Your task to perform on an android device: Open calendar and show me the second week of next month Image 0: 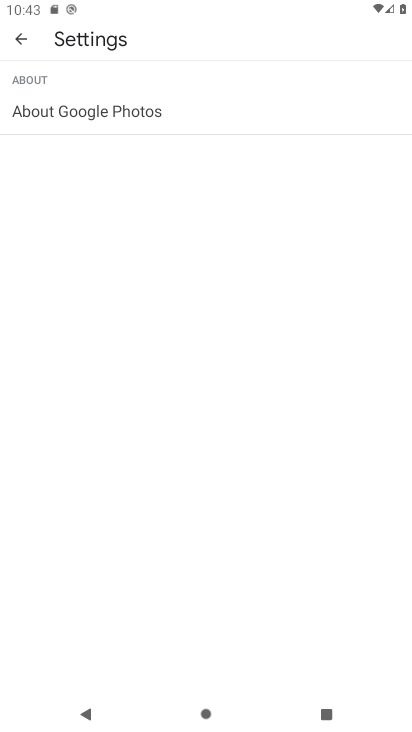
Step 0: click (14, 38)
Your task to perform on an android device: Open calendar and show me the second week of next month Image 1: 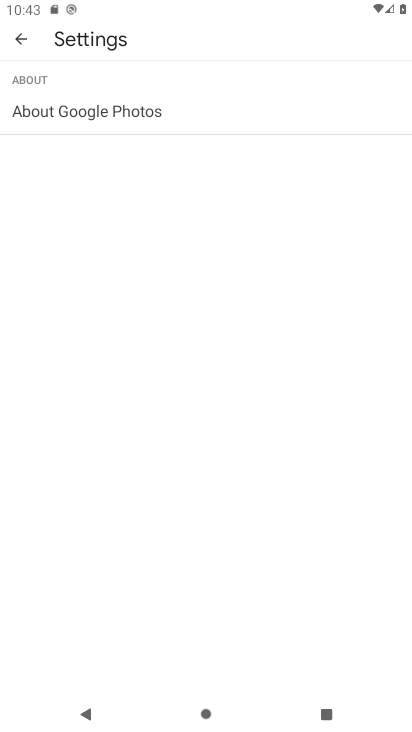
Step 1: click (12, 38)
Your task to perform on an android device: Open calendar and show me the second week of next month Image 2: 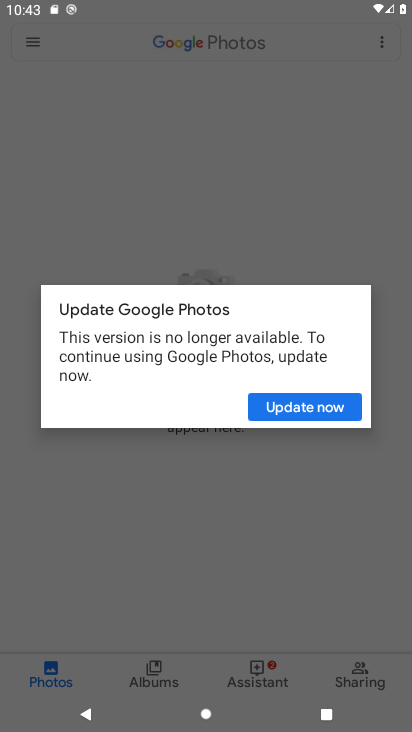
Step 2: click (248, 189)
Your task to perform on an android device: Open calendar and show me the second week of next month Image 3: 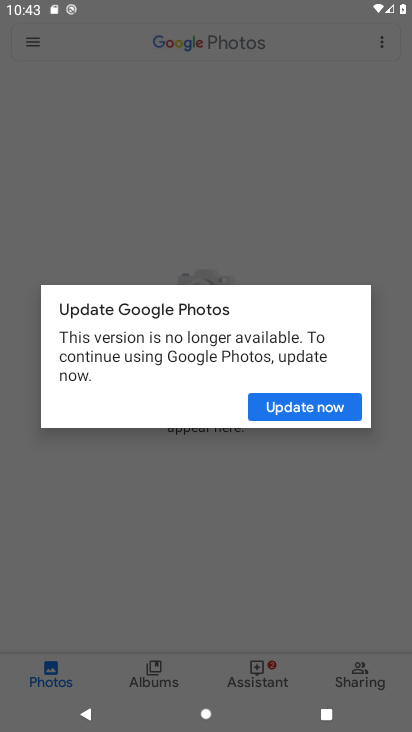
Step 3: click (243, 182)
Your task to perform on an android device: Open calendar and show me the second week of next month Image 4: 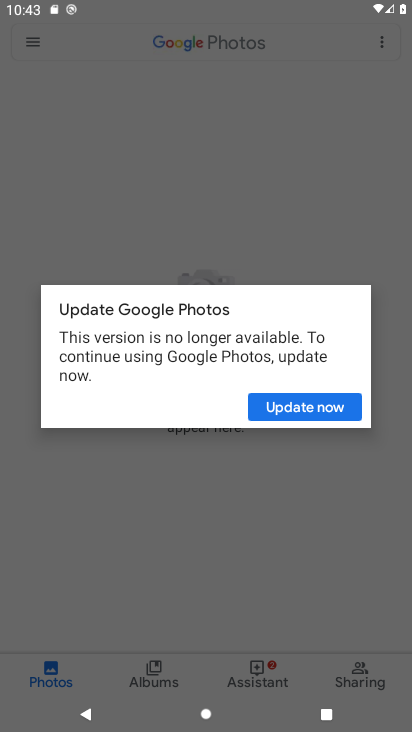
Step 4: press back button
Your task to perform on an android device: Open calendar and show me the second week of next month Image 5: 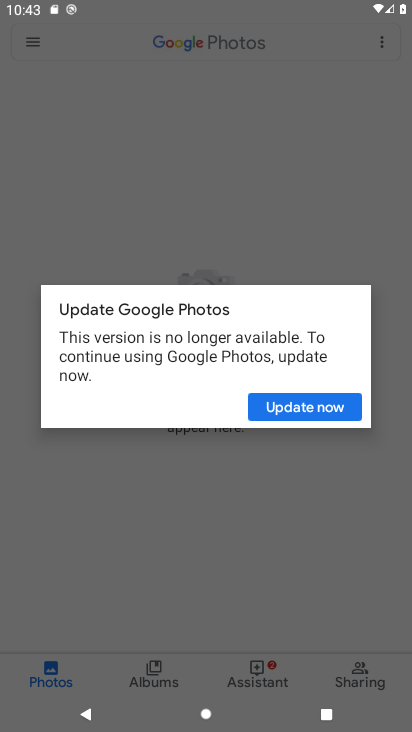
Step 5: press back button
Your task to perform on an android device: Open calendar and show me the second week of next month Image 6: 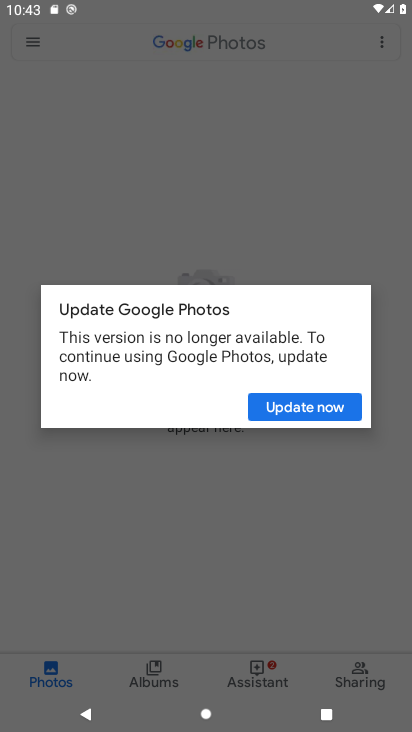
Step 6: click (130, 137)
Your task to perform on an android device: Open calendar and show me the second week of next month Image 7: 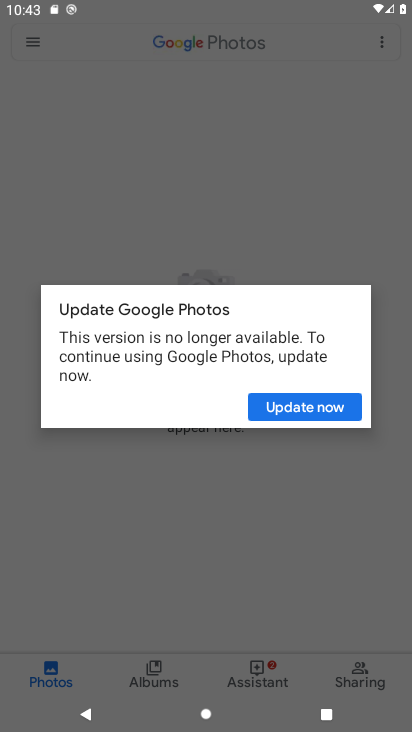
Step 7: click (130, 137)
Your task to perform on an android device: Open calendar and show me the second week of next month Image 8: 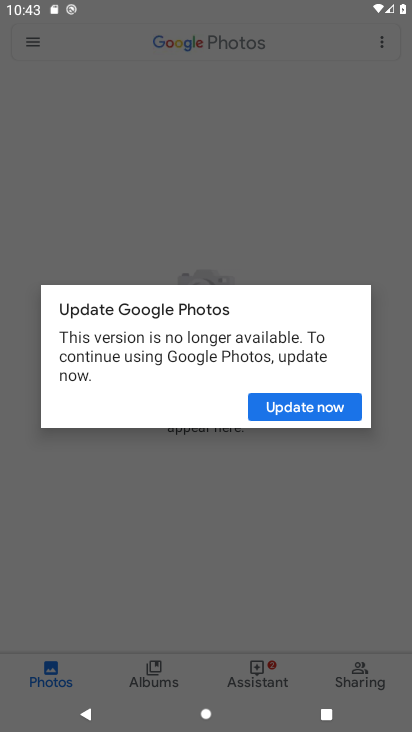
Step 8: press home button
Your task to perform on an android device: Open calendar and show me the second week of next month Image 9: 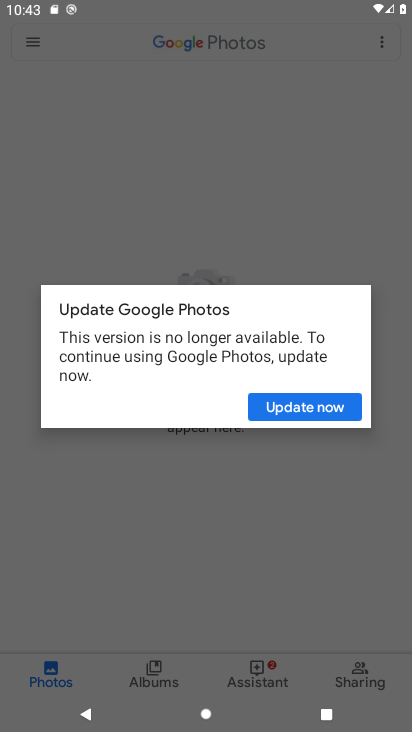
Step 9: press home button
Your task to perform on an android device: Open calendar and show me the second week of next month Image 10: 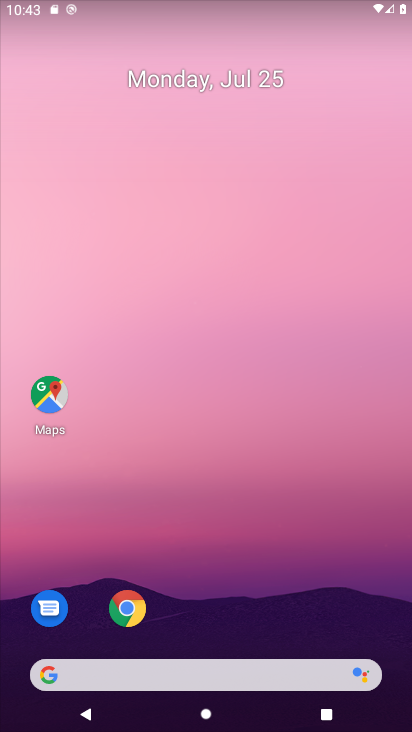
Step 10: click (191, 258)
Your task to perform on an android device: Open calendar and show me the second week of next month Image 11: 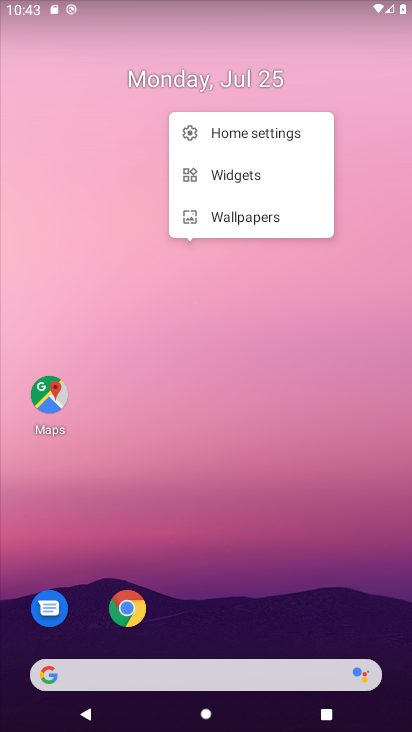
Step 11: drag from (250, 616) to (207, 296)
Your task to perform on an android device: Open calendar and show me the second week of next month Image 12: 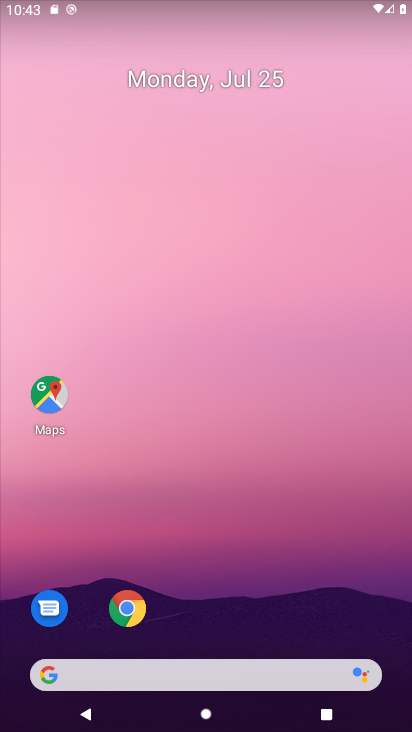
Step 12: drag from (263, 566) to (228, 267)
Your task to perform on an android device: Open calendar and show me the second week of next month Image 13: 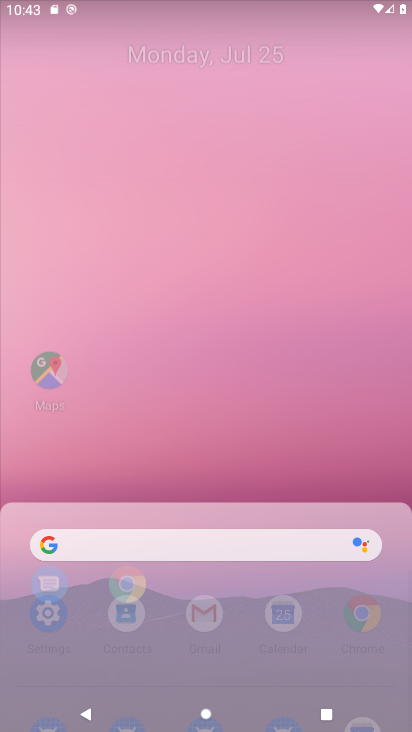
Step 13: click (170, 120)
Your task to perform on an android device: Open calendar and show me the second week of next month Image 14: 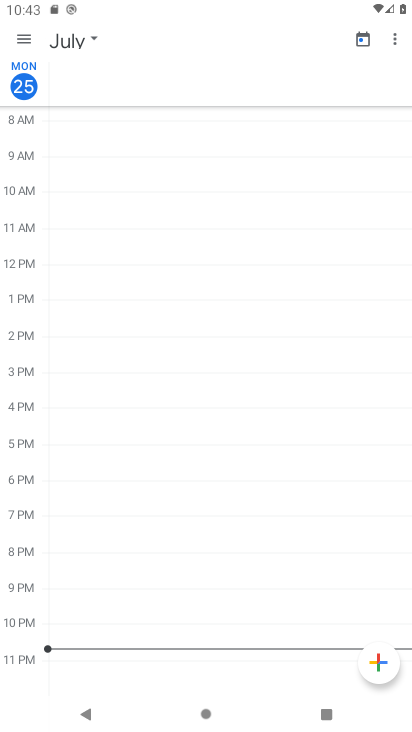
Step 14: drag from (246, 637) to (231, 246)
Your task to perform on an android device: Open calendar and show me the second week of next month Image 15: 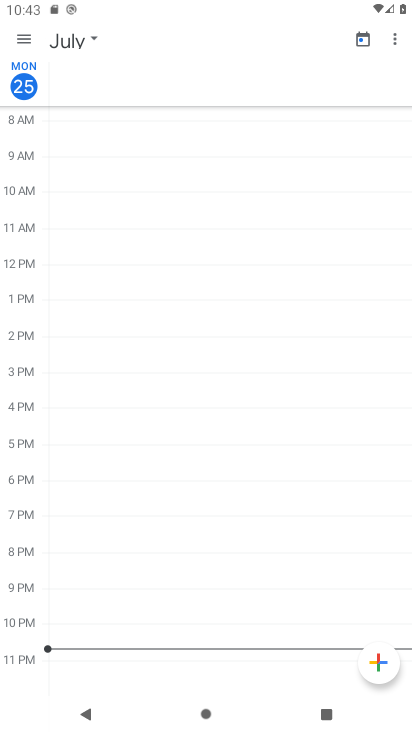
Step 15: press back button
Your task to perform on an android device: Open calendar and show me the second week of next month Image 16: 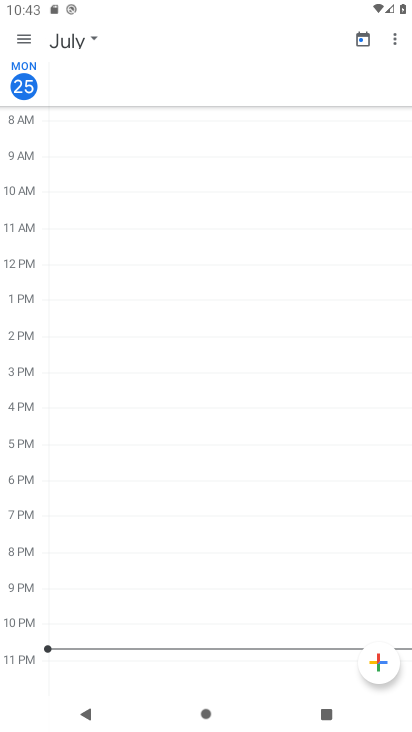
Step 16: press back button
Your task to perform on an android device: Open calendar and show me the second week of next month Image 17: 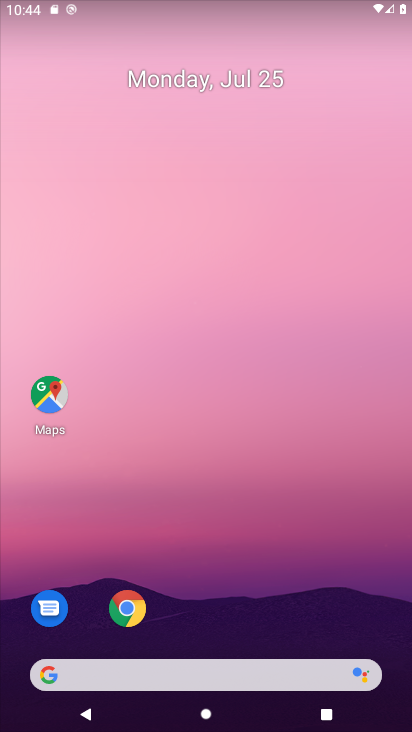
Step 17: drag from (284, 529) to (190, 237)
Your task to perform on an android device: Open calendar and show me the second week of next month Image 18: 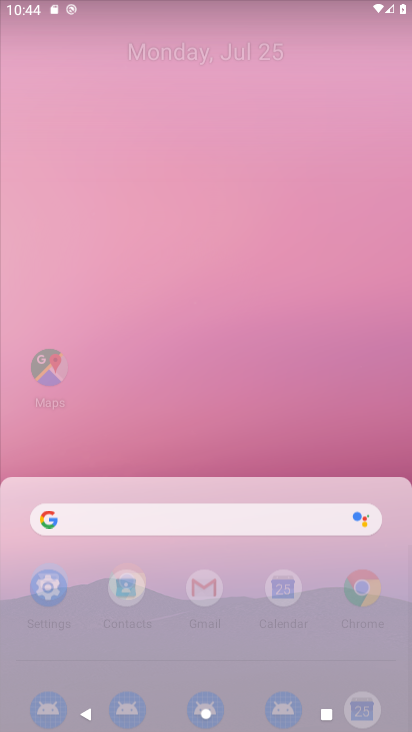
Step 18: drag from (180, 658) to (186, 379)
Your task to perform on an android device: Open calendar and show me the second week of next month Image 19: 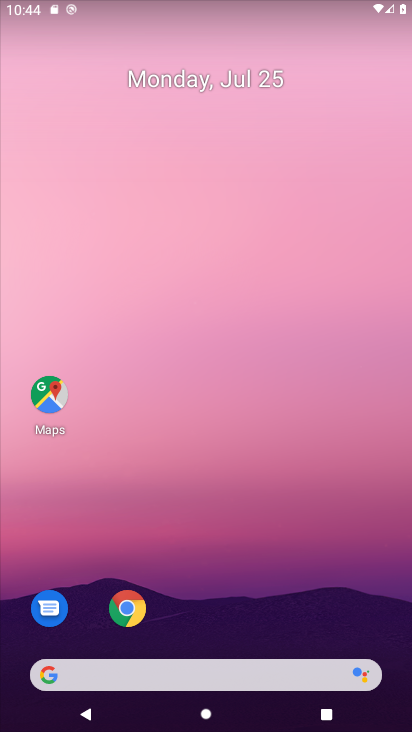
Step 19: drag from (191, 488) to (141, 266)
Your task to perform on an android device: Open calendar and show me the second week of next month Image 20: 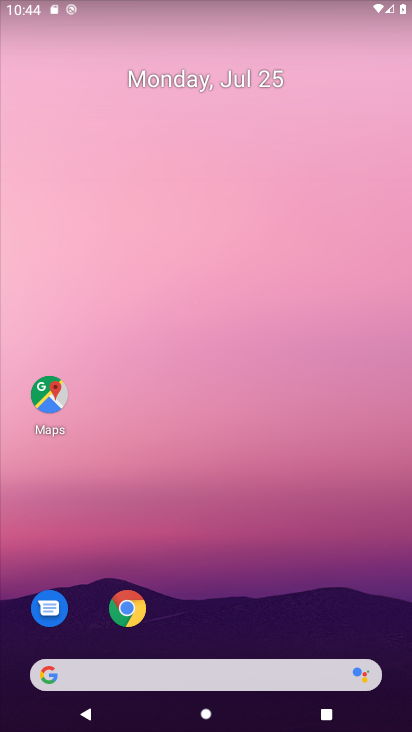
Step 20: drag from (260, 566) to (222, 266)
Your task to perform on an android device: Open calendar and show me the second week of next month Image 21: 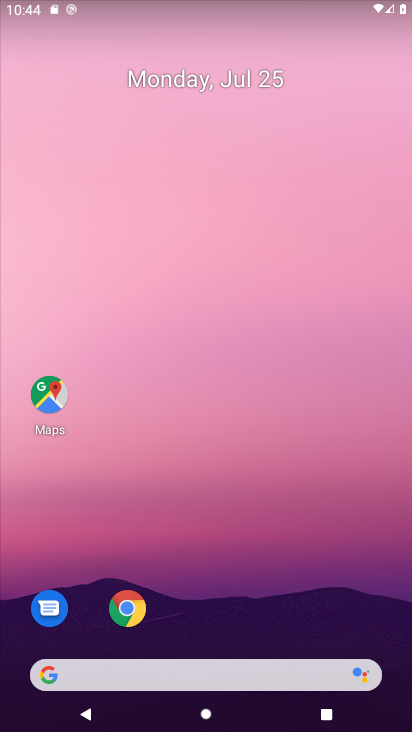
Step 21: drag from (275, 660) to (257, 202)
Your task to perform on an android device: Open calendar and show me the second week of next month Image 22: 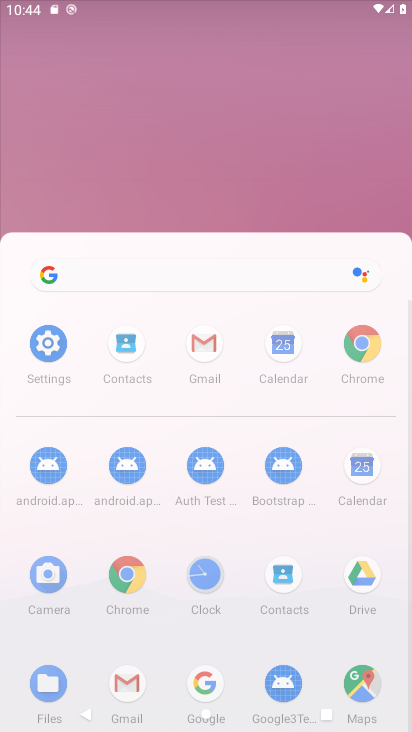
Step 22: drag from (246, 547) to (196, 171)
Your task to perform on an android device: Open calendar and show me the second week of next month Image 23: 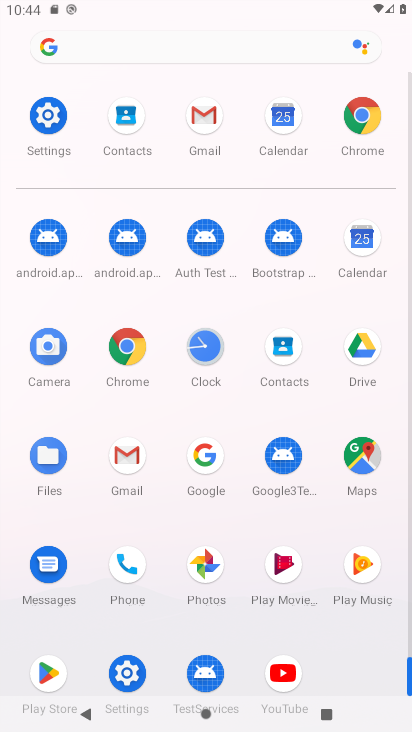
Step 23: click (358, 240)
Your task to perform on an android device: Open calendar and show me the second week of next month Image 24: 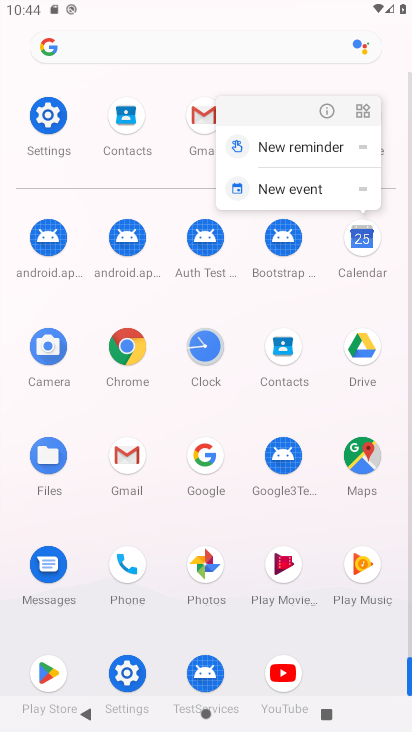
Step 24: click (356, 248)
Your task to perform on an android device: Open calendar and show me the second week of next month Image 25: 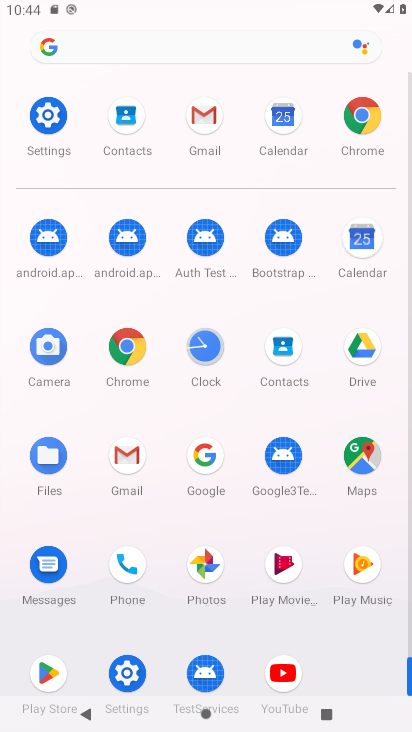
Step 25: click (356, 247)
Your task to perform on an android device: Open calendar and show me the second week of next month Image 26: 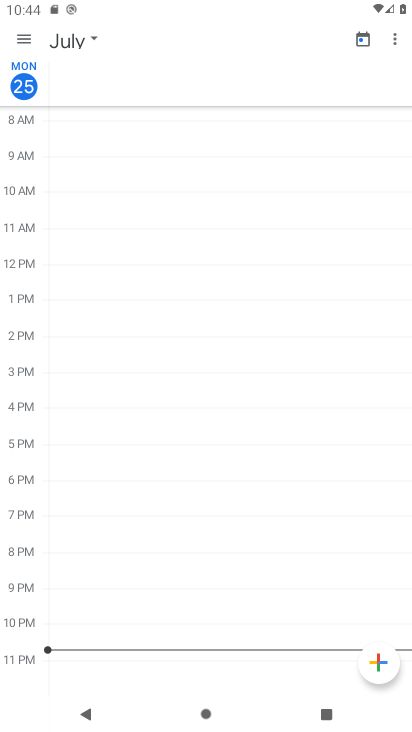
Step 26: click (89, 32)
Your task to perform on an android device: Open calendar and show me the second week of next month Image 27: 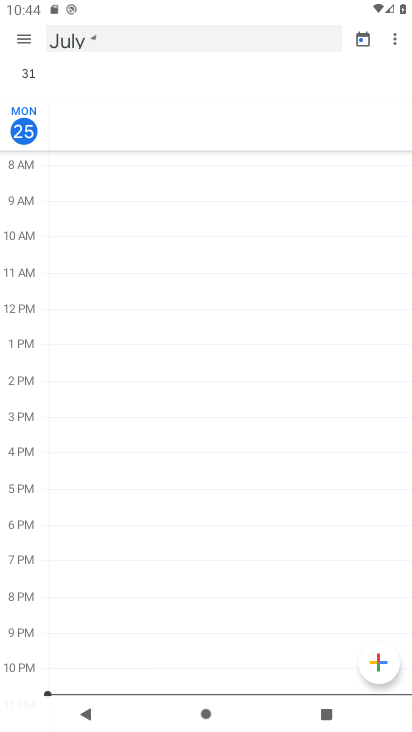
Step 27: click (92, 34)
Your task to perform on an android device: Open calendar and show me the second week of next month Image 28: 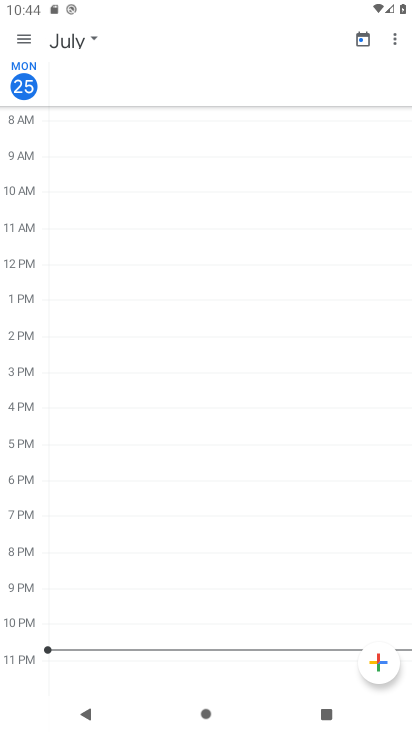
Step 28: click (92, 36)
Your task to perform on an android device: Open calendar and show me the second week of next month Image 29: 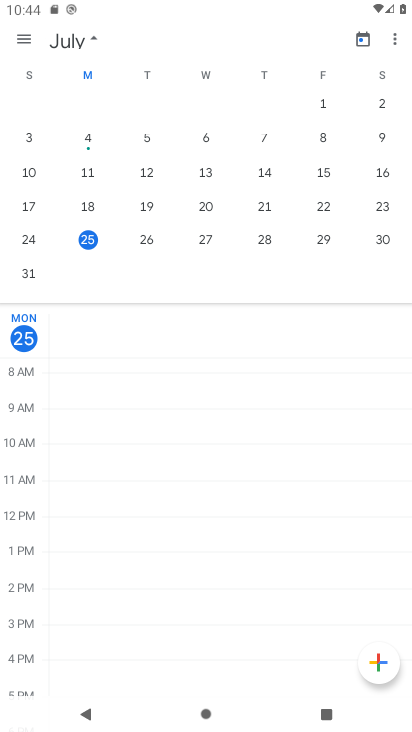
Step 29: drag from (315, 191) to (28, 223)
Your task to perform on an android device: Open calendar and show me the second week of next month Image 30: 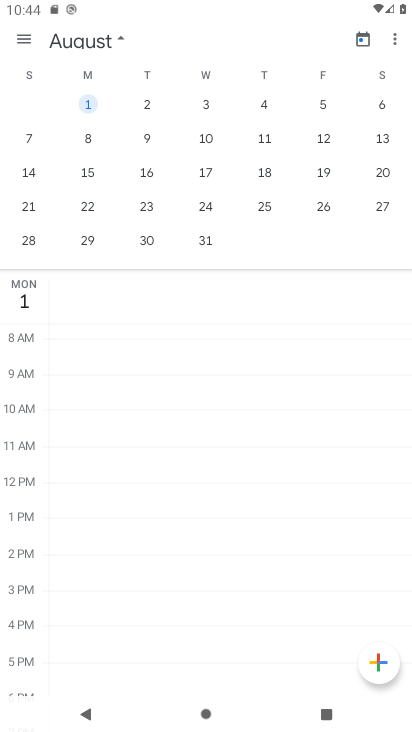
Step 30: click (147, 142)
Your task to perform on an android device: Open calendar and show me the second week of next month Image 31: 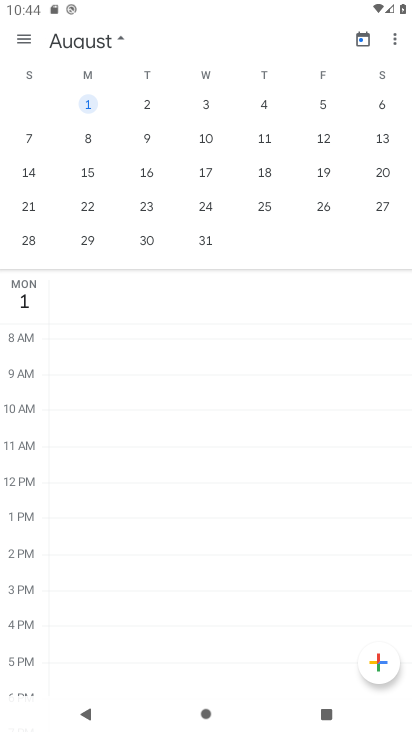
Step 31: click (144, 142)
Your task to perform on an android device: Open calendar and show me the second week of next month Image 32: 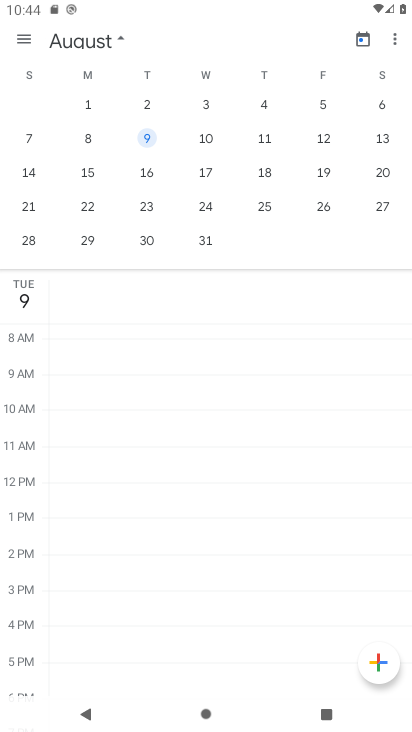
Step 32: click (144, 142)
Your task to perform on an android device: Open calendar and show me the second week of next month Image 33: 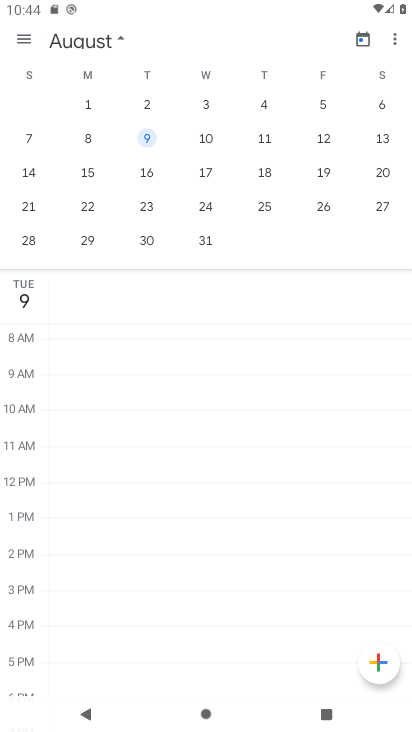
Step 33: task complete